Your task to perform on an android device: Open Wikipedia Image 0: 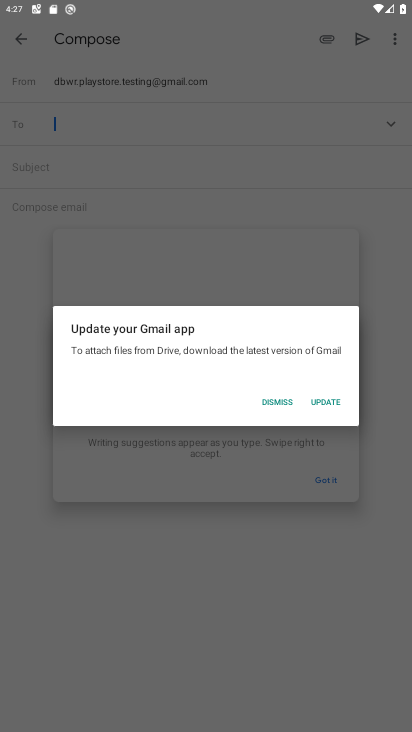
Step 0: press home button
Your task to perform on an android device: Open Wikipedia Image 1: 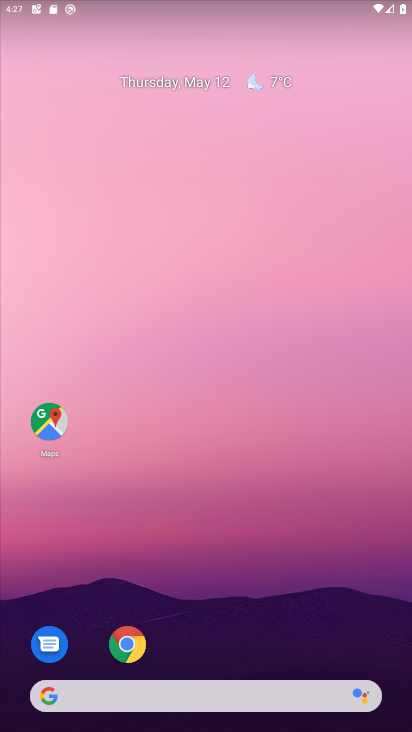
Step 1: drag from (223, 662) to (295, 20)
Your task to perform on an android device: Open Wikipedia Image 2: 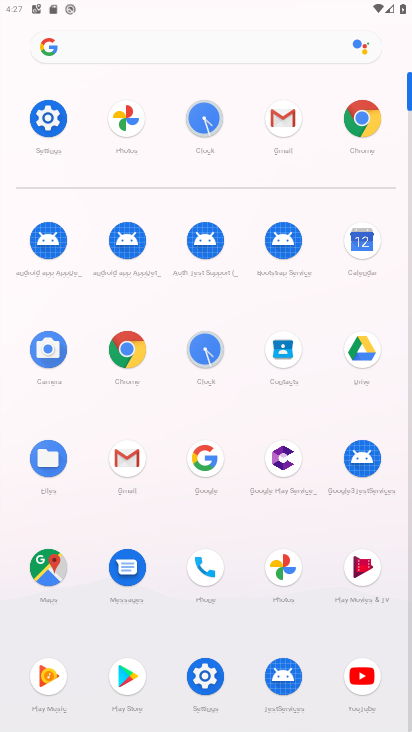
Step 2: click (124, 342)
Your task to perform on an android device: Open Wikipedia Image 3: 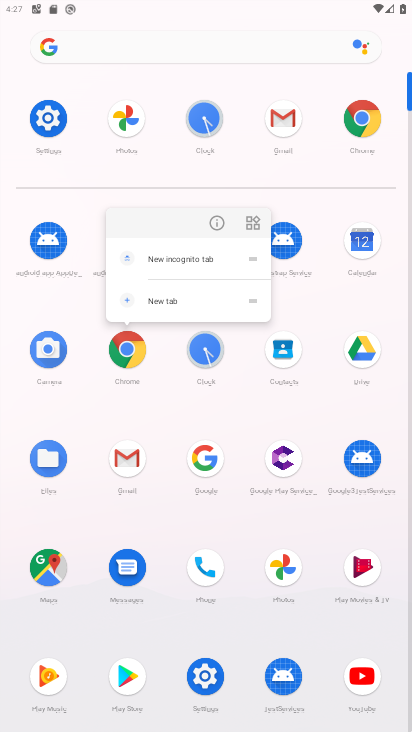
Step 3: click (124, 342)
Your task to perform on an android device: Open Wikipedia Image 4: 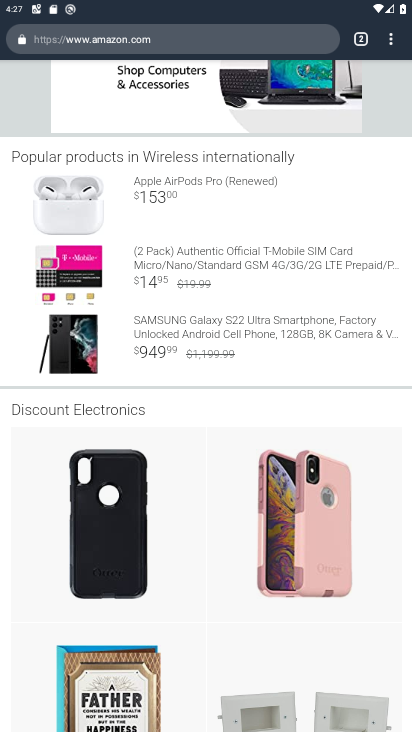
Step 4: drag from (209, 168) to (214, 650)
Your task to perform on an android device: Open Wikipedia Image 5: 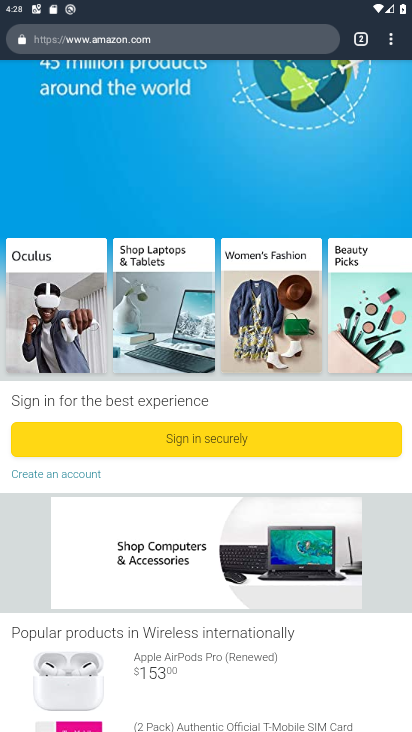
Step 5: click (363, 44)
Your task to perform on an android device: Open Wikipedia Image 6: 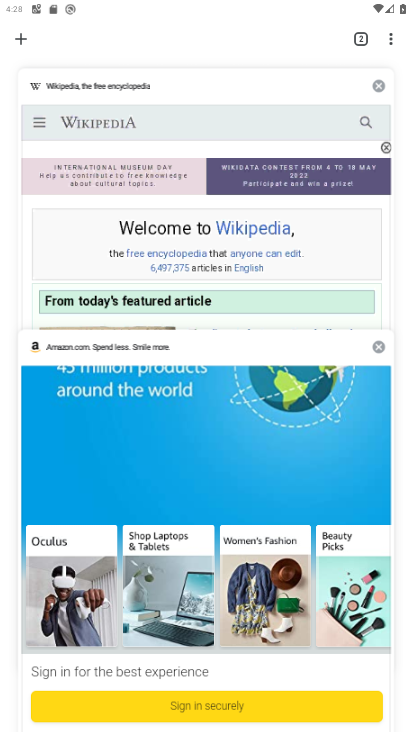
Step 6: click (377, 79)
Your task to perform on an android device: Open Wikipedia Image 7: 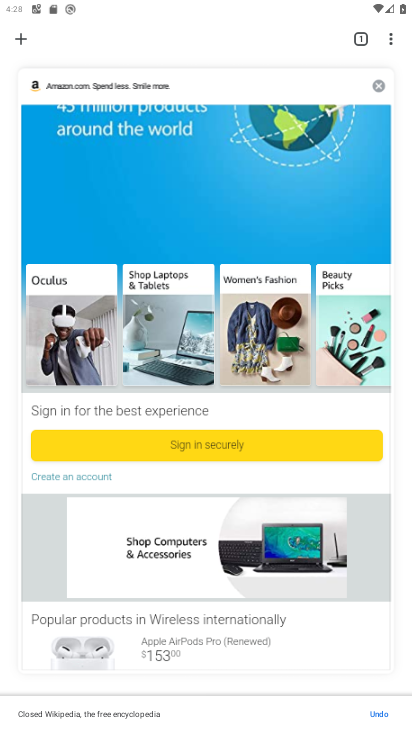
Step 7: click (377, 79)
Your task to perform on an android device: Open Wikipedia Image 8: 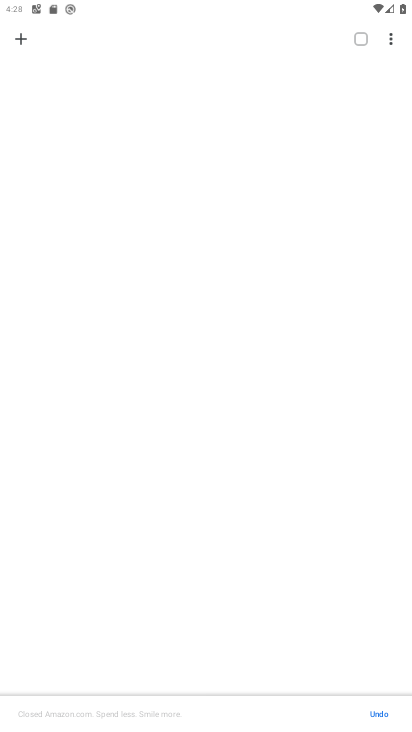
Step 8: click (24, 34)
Your task to perform on an android device: Open Wikipedia Image 9: 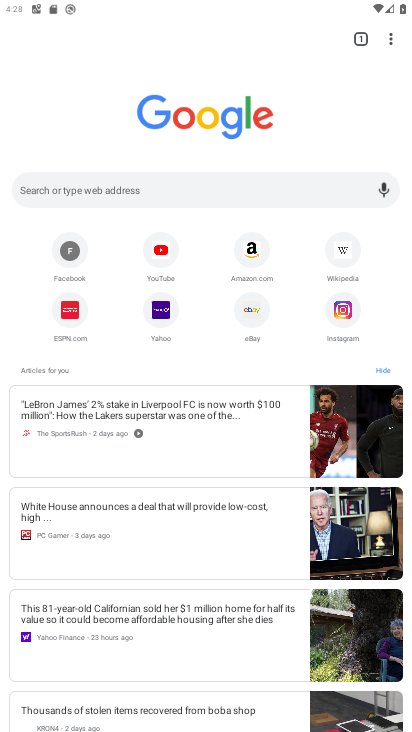
Step 9: click (346, 245)
Your task to perform on an android device: Open Wikipedia Image 10: 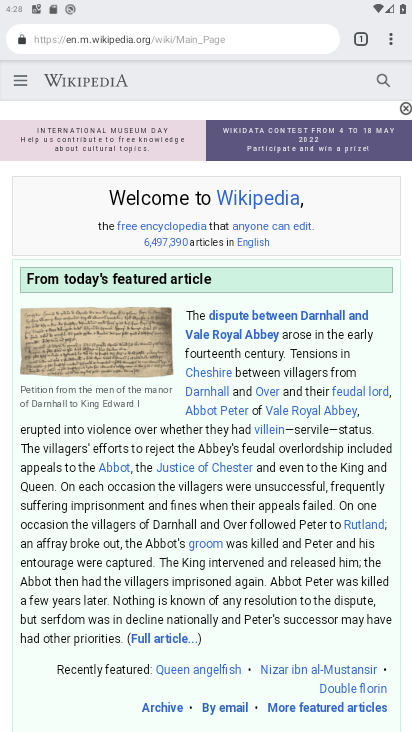
Step 10: task complete